Your task to perform on an android device: Open CNN.com Image 0: 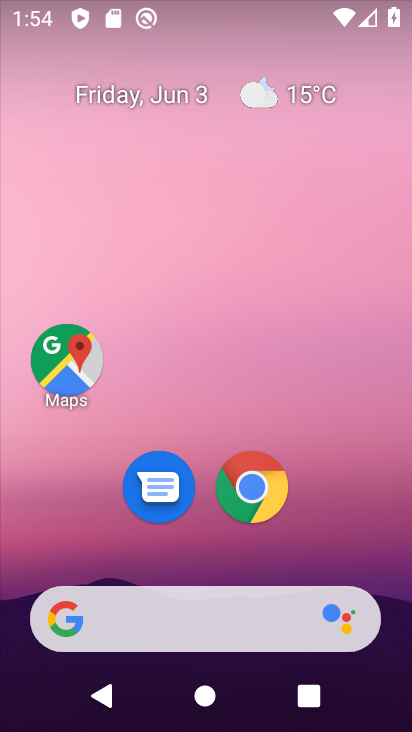
Step 0: click (281, 497)
Your task to perform on an android device: Open CNN.com Image 1: 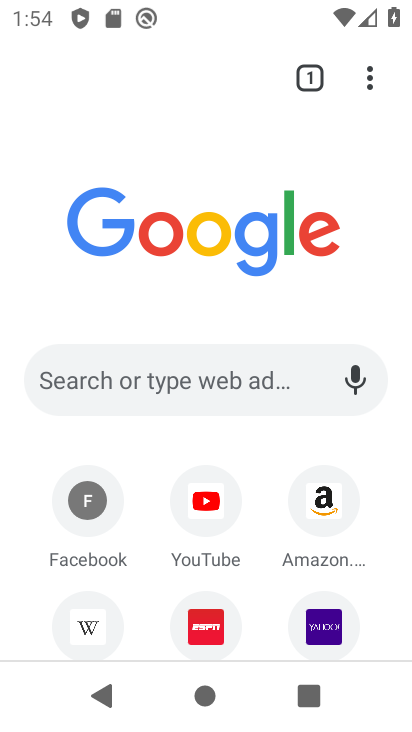
Step 1: click (215, 370)
Your task to perform on an android device: Open CNN.com Image 2: 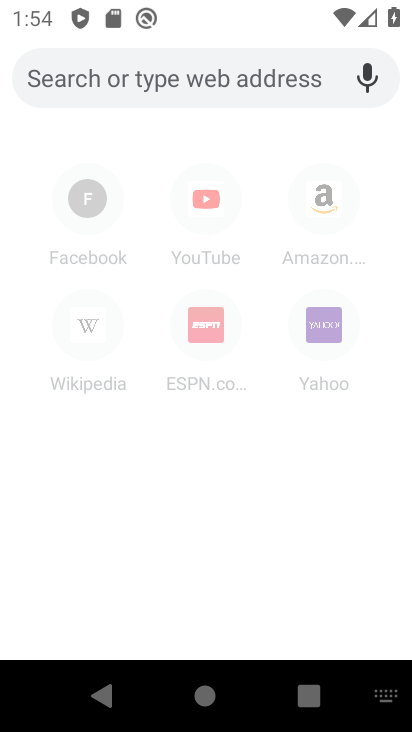
Step 2: type "CNN.com"
Your task to perform on an android device: Open CNN.com Image 3: 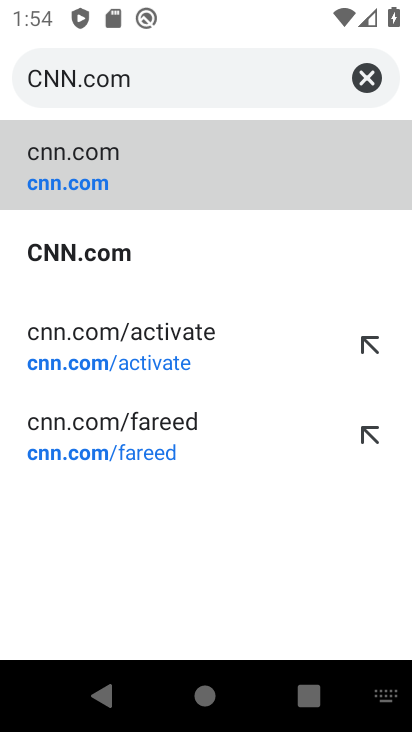
Step 3: click (246, 248)
Your task to perform on an android device: Open CNN.com Image 4: 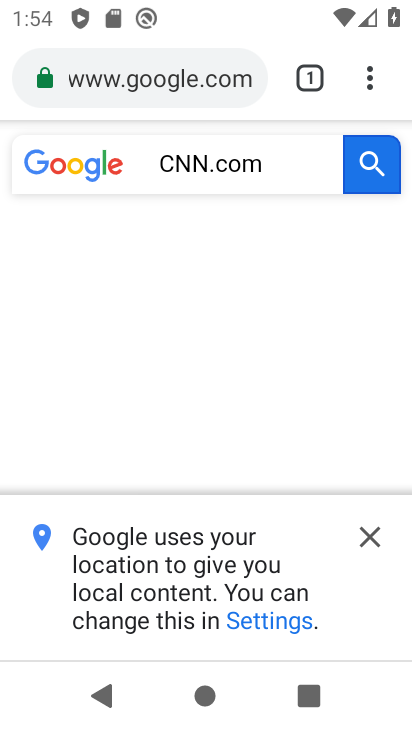
Step 4: task complete